Your task to perform on an android device: Go to Amazon Image 0: 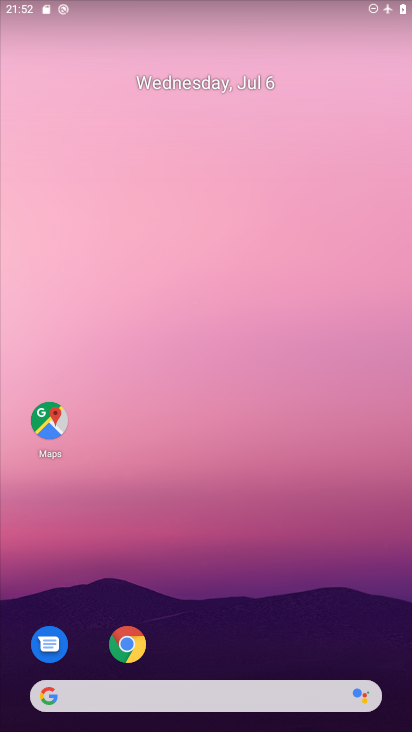
Step 0: click (131, 644)
Your task to perform on an android device: Go to Amazon Image 1: 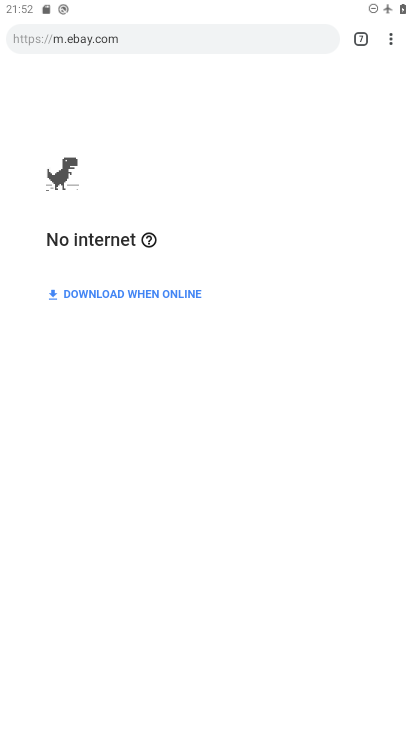
Step 1: click (362, 29)
Your task to perform on an android device: Go to Amazon Image 2: 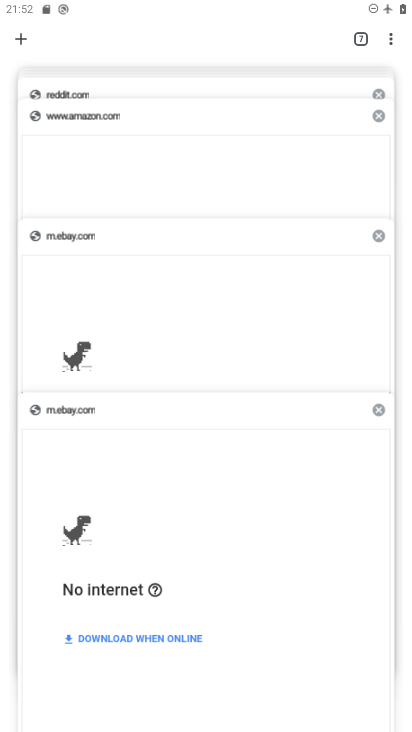
Step 2: click (128, 143)
Your task to perform on an android device: Go to Amazon Image 3: 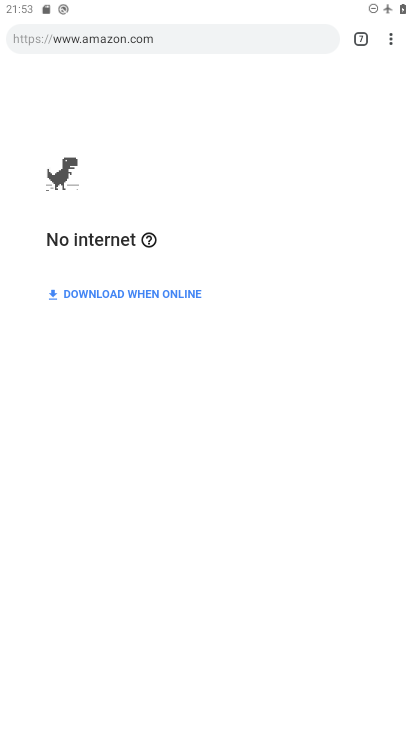
Step 3: task complete